Your task to perform on an android device: Open Yahoo.com Image 0: 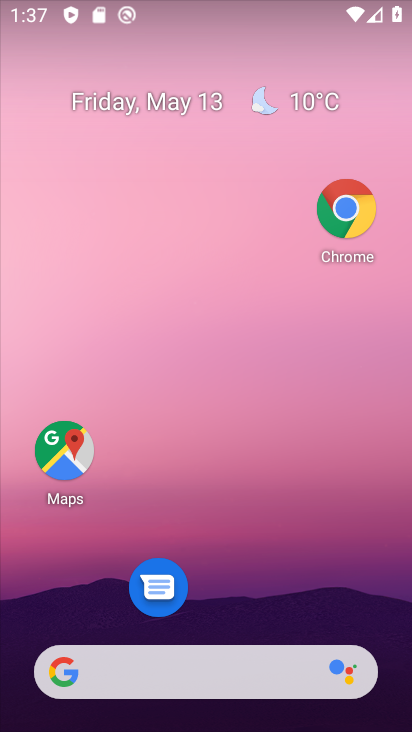
Step 0: click (355, 244)
Your task to perform on an android device: Open Yahoo.com Image 1: 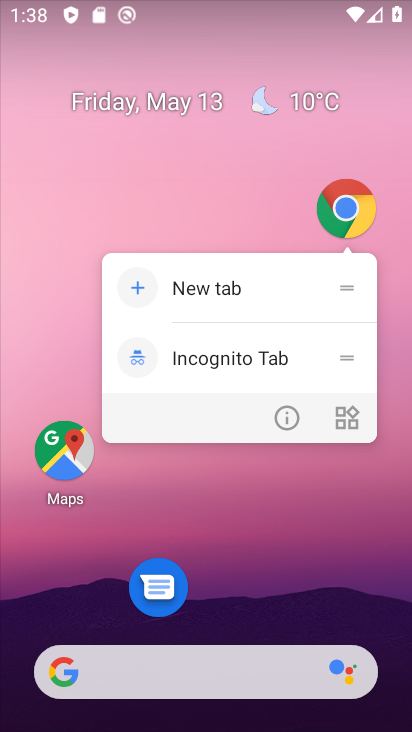
Step 1: click (347, 199)
Your task to perform on an android device: Open Yahoo.com Image 2: 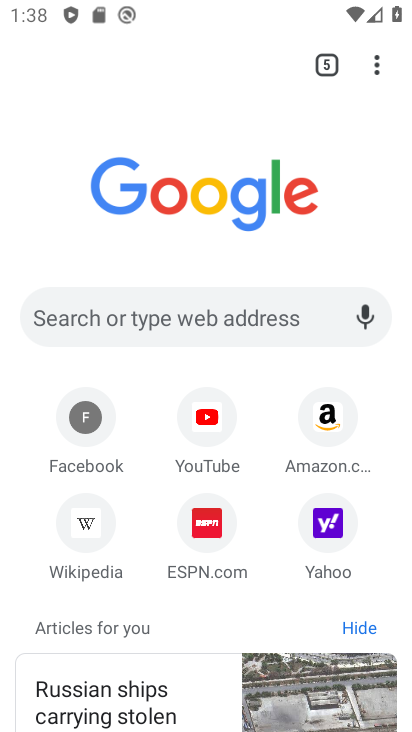
Step 2: click (328, 537)
Your task to perform on an android device: Open Yahoo.com Image 3: 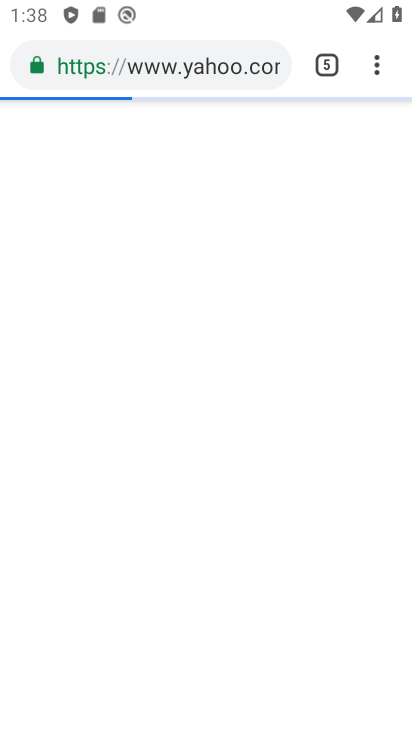
Step 3: task complete